Your task to perform on an android device: Go to Android settings Image 0: 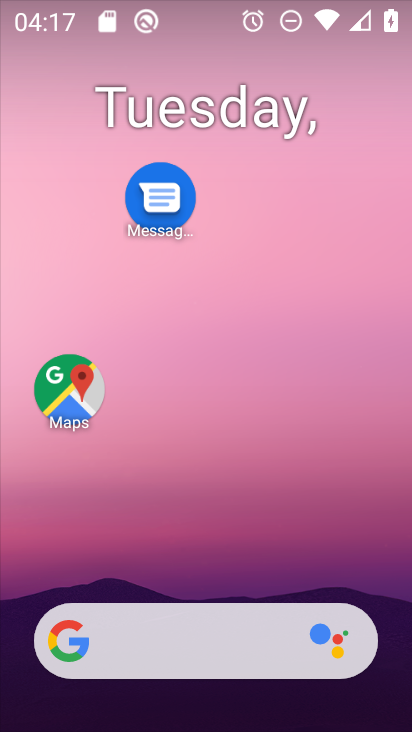
Step 0: drag from (201, 571) to (213, 192)
Your task to perform on an android device: Go to Android settings Image 1: 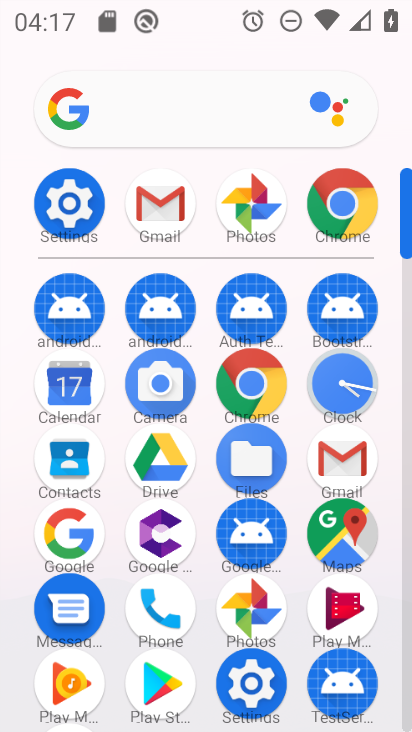
Step 1: click (81, 211)
Your task to perform on an android device: Go to Android settings Image 2: 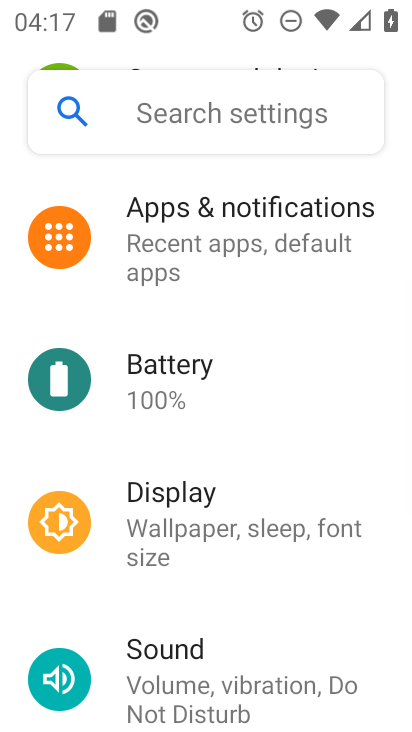
Step 2: task complete